Your task to perform on an android device: What's the weather today? Image 0: 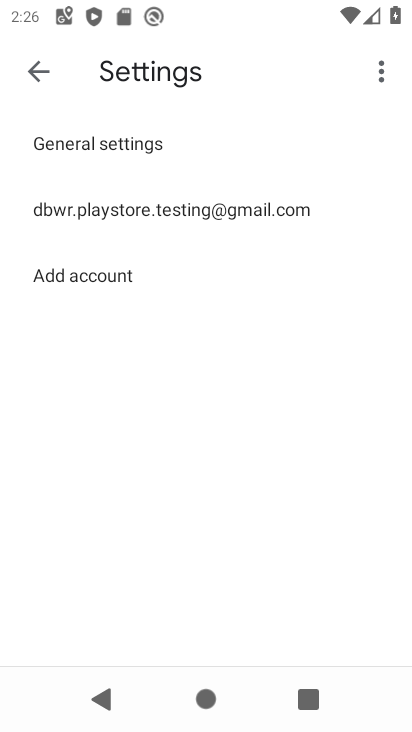
Step 0: press home button
Your task to perform on an android device: What's the weather today? Image 1: 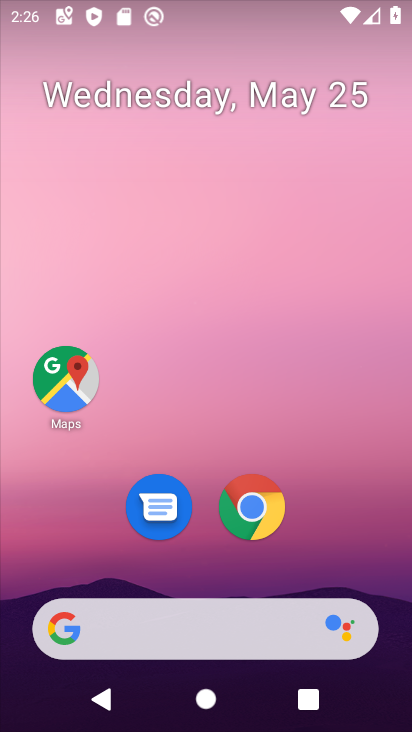
Step 1: drag from (180, 643) to (186, 191)
Your task to perform on an android device: What's the weather today? Image 2: 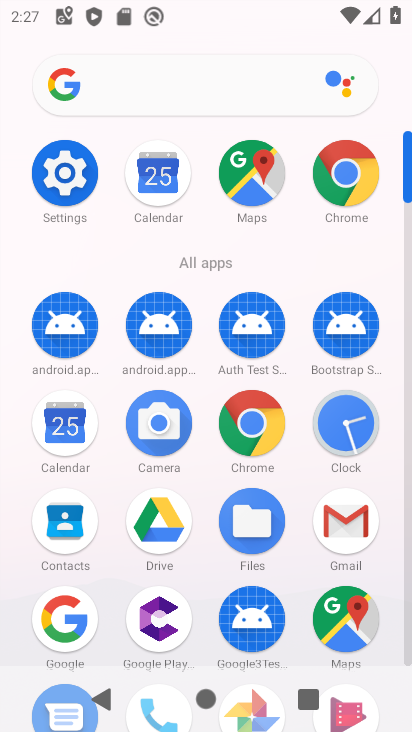
Step 2: click (60, 613)
Your task to perform on an android device: What's the weather today? Image 3: 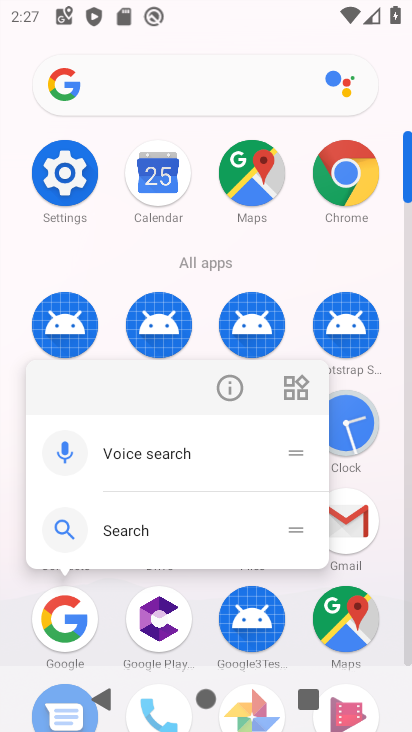
Step 3: click (60, 613)
Your task to perform on an android device: What's the weather today? Image 4: 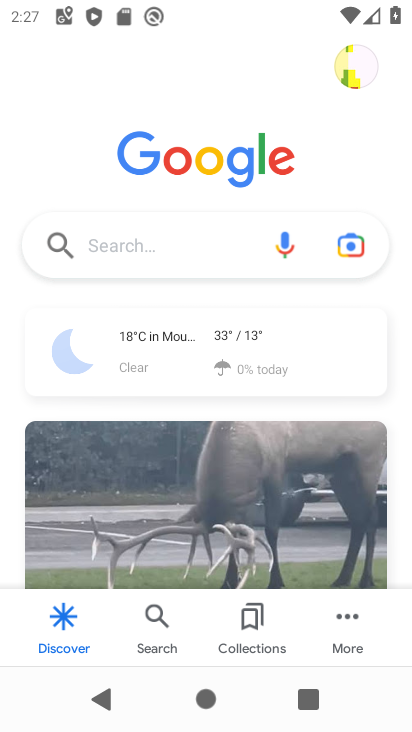
Step 4: click (182, 242)
Your task to perform on an android device: What's the weather today? Image 5: 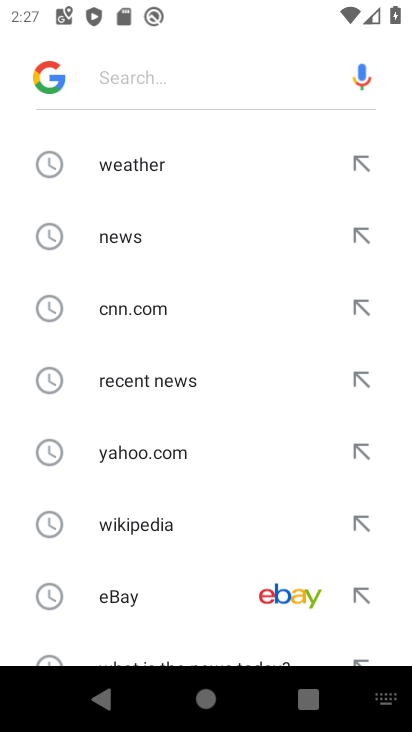
Step 5: click (181, 164)
Your task to perform on an android device: What's the weather today? Image 6: 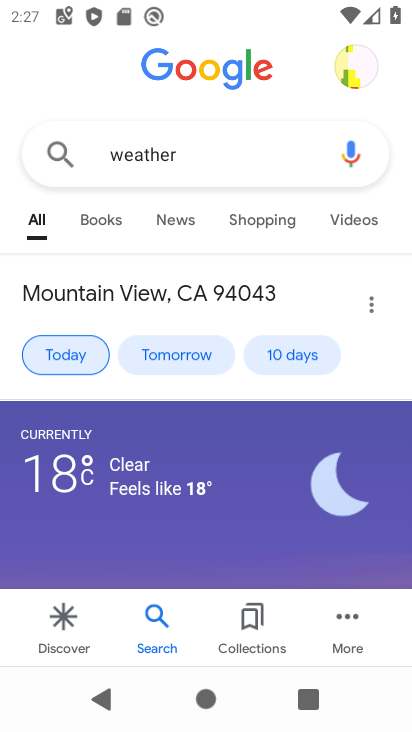
Step 6: task complete